Your task to perform on an android device: turn off location history Image 0: 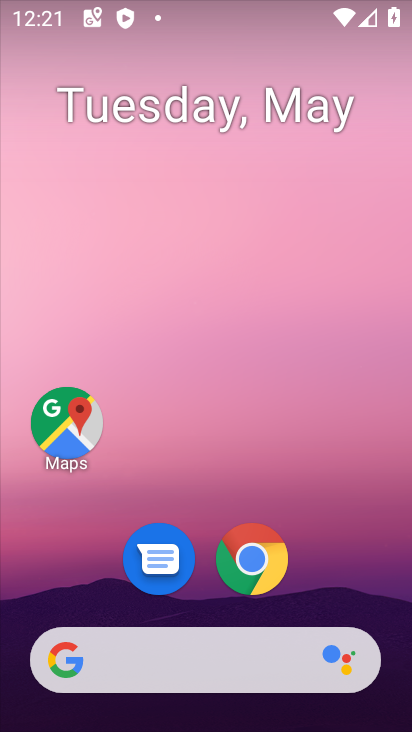
Step 0: drag from (342, 577) to (314, 209)
Your task to perform on an android device: turn off location history Image 1: 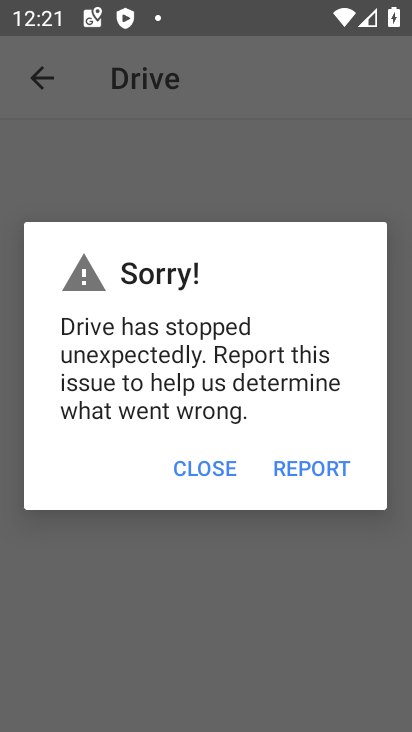
Step 1: press home button
Your task to perform on an android device: turn off location history Image 2: 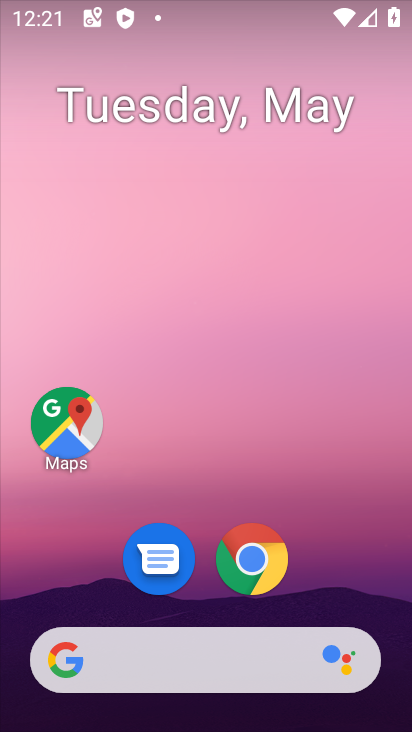
Step 2: drag from (366, 593) to (327, 105)
Your task to perform on an android device: turn off location history Image 3: 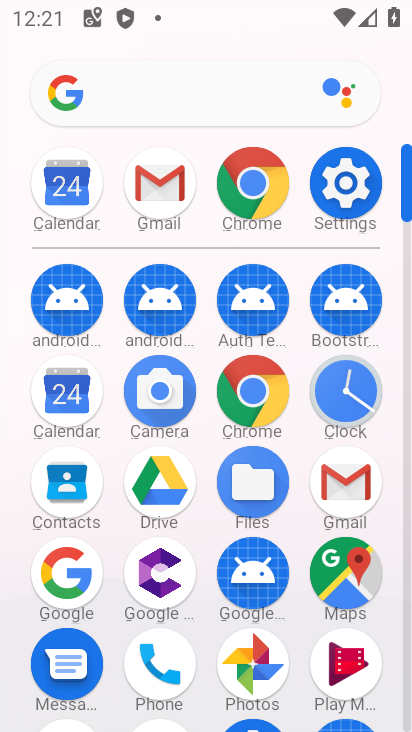
Step 3: drag from (399, 688) to (407, 731)
Your task to perform on an android device: turn off location history Image 4: 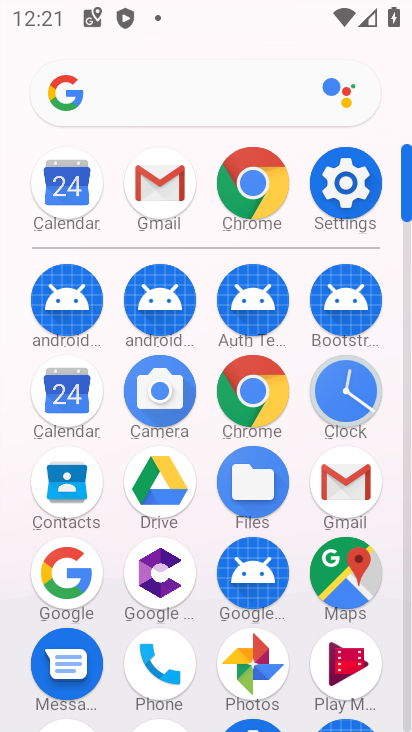
Step 4: click (348, 201)
Your task to perform on an android device: turn off location history Image 5: 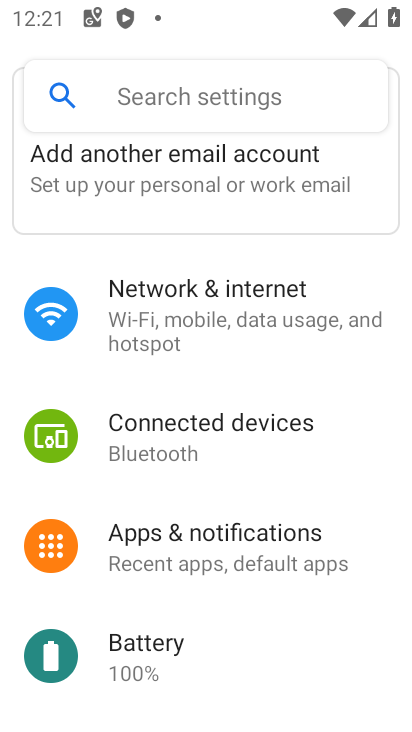
Step 5: drag from (148, 629) to (228, 165)
Your task to perform on an android device: turn off location history Image 6: 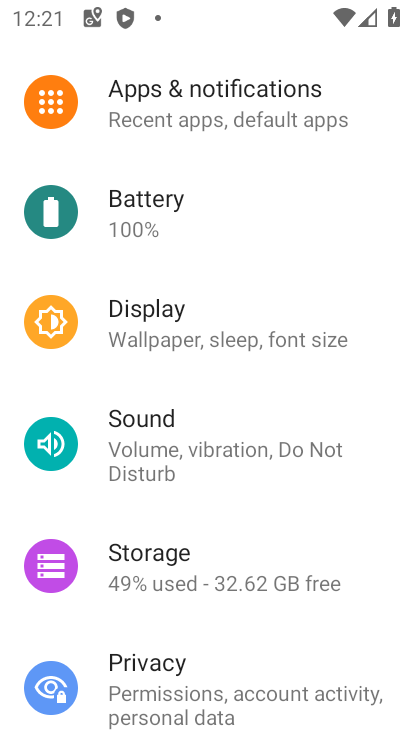
Step 6: drag from (266, 610) to (295, 205)
Your task to perform on an android device: turn off location history Image 7: 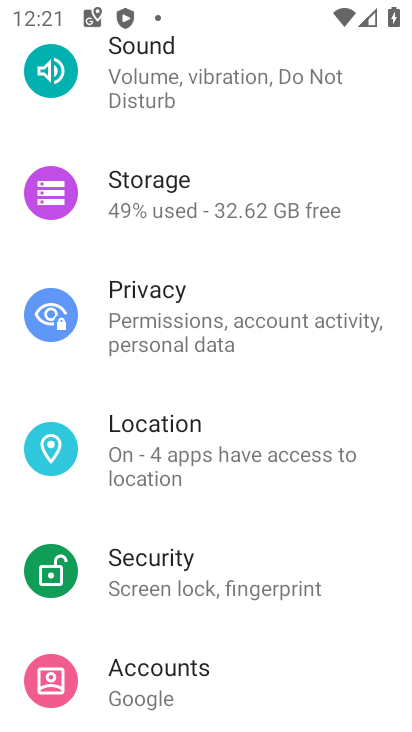
Step 7: click (248, 429)
Your task to perform on an android device: turn off location history Image 8: 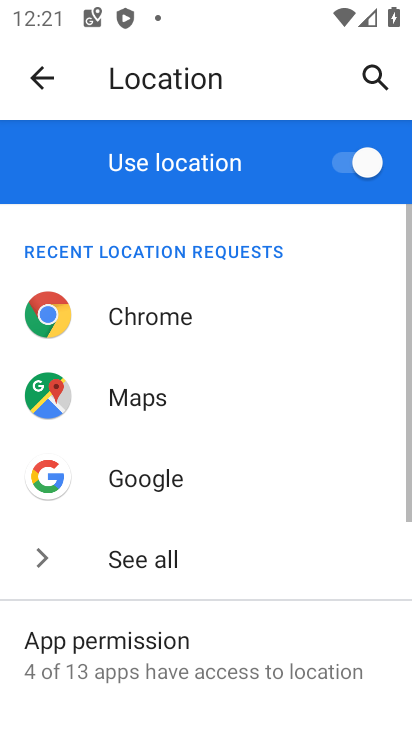
Step 8: drag from (160, 643) to (277, 207)
Your task to perform on an android device: turn off location history Image 9: 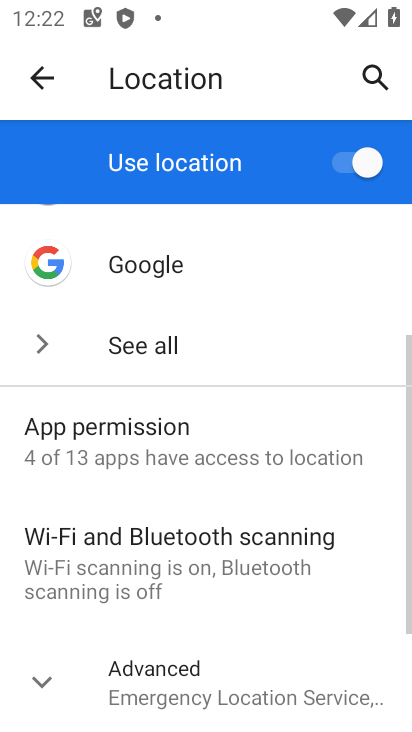
Step 9: click (315, 161)
Your task to perform on an android device: turn off location history Image 10: 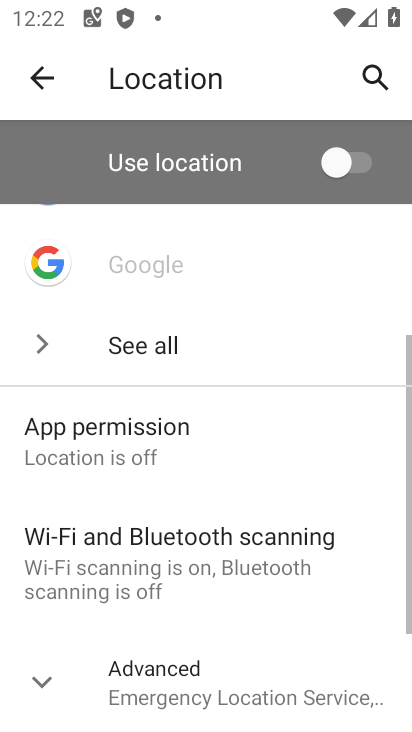
Step 10: task complete